Your task to perform on an android device: Search for vegetarian restaurants on Maps Image 0: 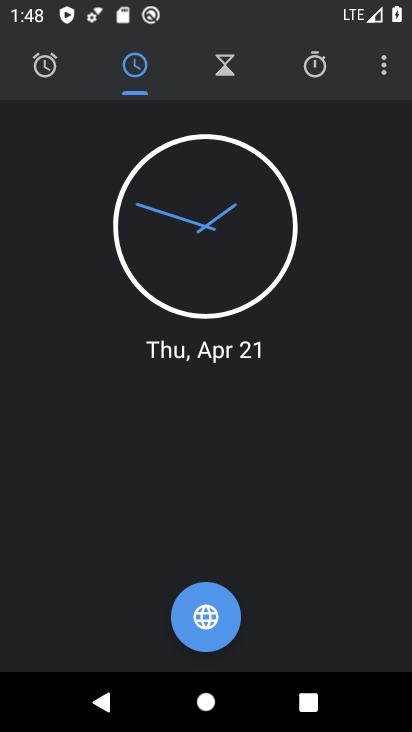
Step 0: press home button
Your task to perform on an android device: Search for vegetarian restaurants on Maps Image 1: 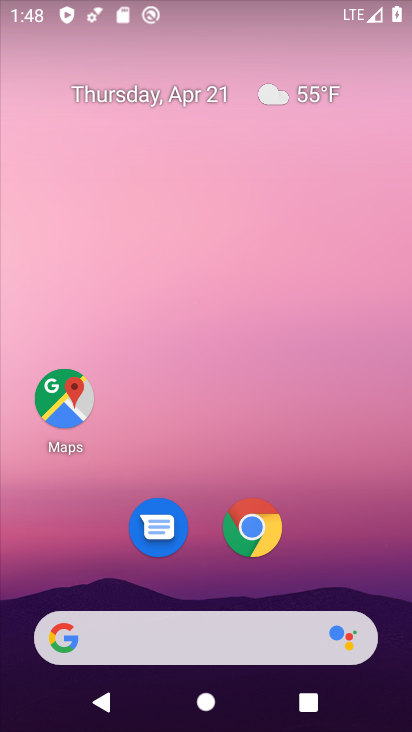
Step 1: drag from (338, 576) to (365, 139)
Your task to perform on an android device: Search for vegetarian restaurants on Maps Image 2: 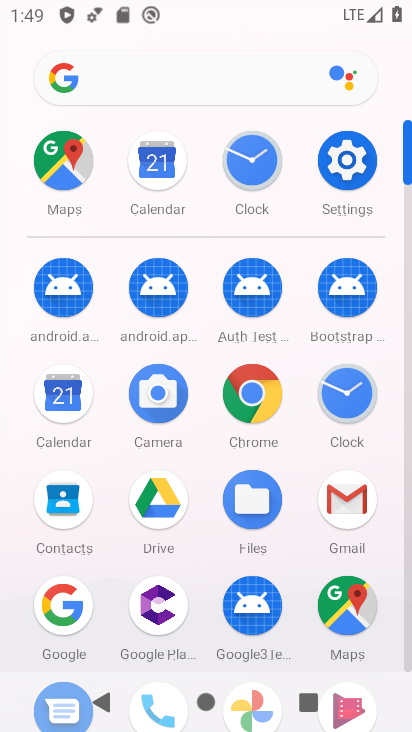
Step 2: click (347, 607)
Your task to perform on an android device: Search for vegetarian restaurants on Maps Image 3: 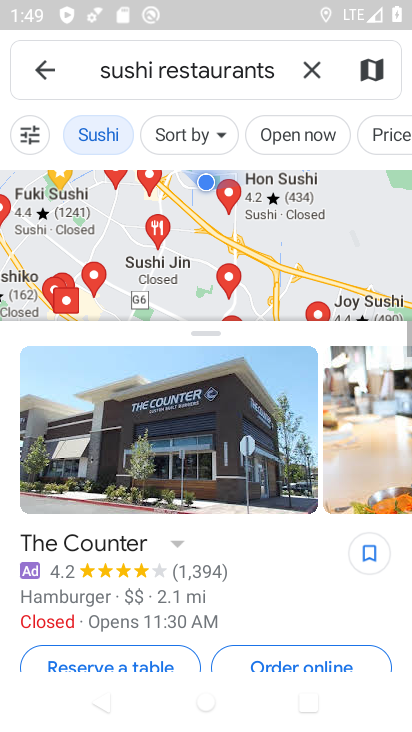
Step 3: click (292, 65)
Your task to perform on an android device: Search for vegetarian restaurants on Maps Image 4: 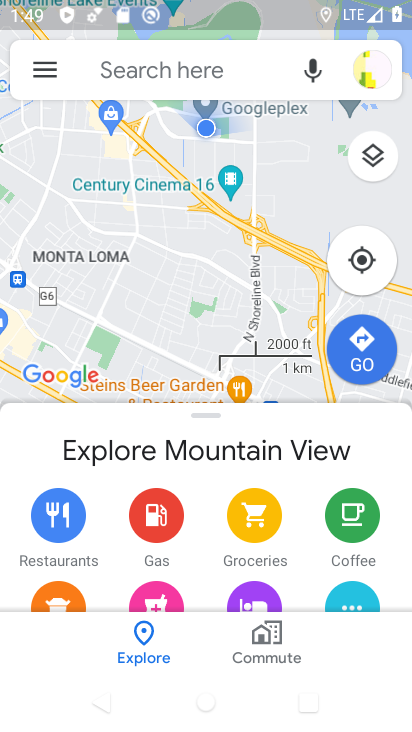
Step 4: click (234, 71)
Your task to perform on an android device: Search for vegetarian restaurants on Maps Image 5: 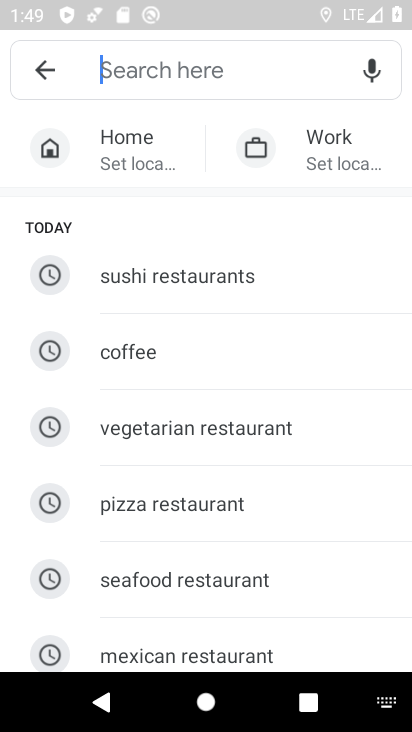
Step 5: type "vegetarian restaurants"
Your task to perform on an android device: Search for vegetarian restaurants on Maps Image 6: 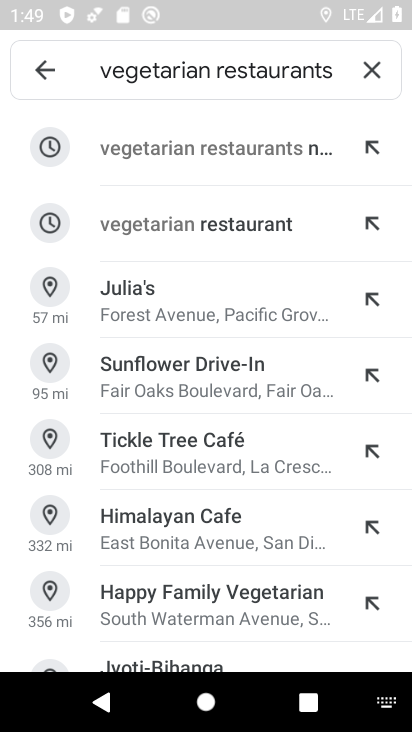
Step 6: click (200, 148)
Your task to perform on an android device: Search for vegetarian restaurants on Maps Image 7: 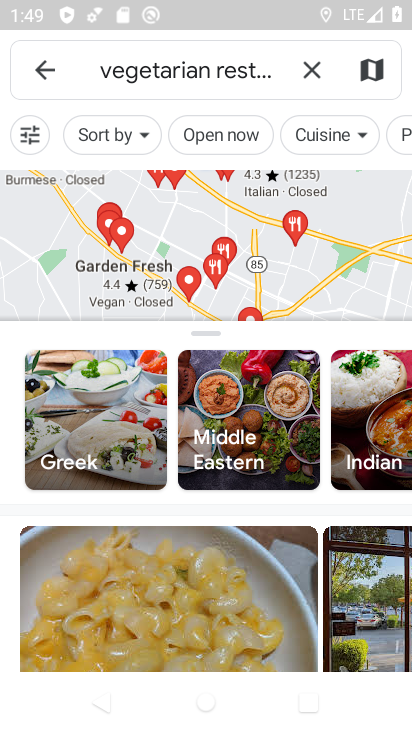
Step 7: task complete